Your task to perform on an android device: Toggle the flashlight Image 0: 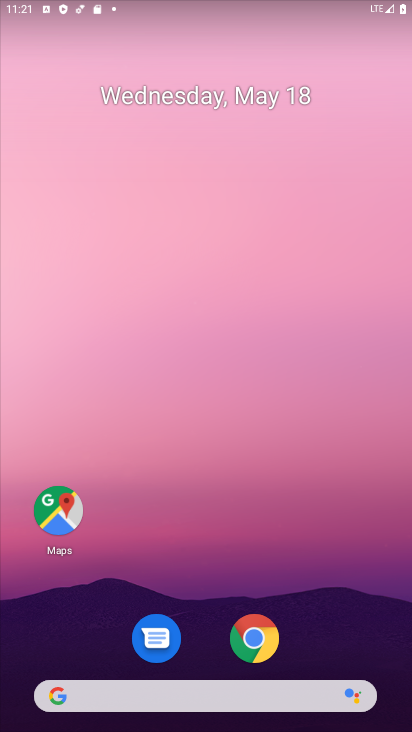
Step 0: drag from (359, 595) to (309, 6)
Your task to perform on an android device: Toggle the flashlight Image 1: 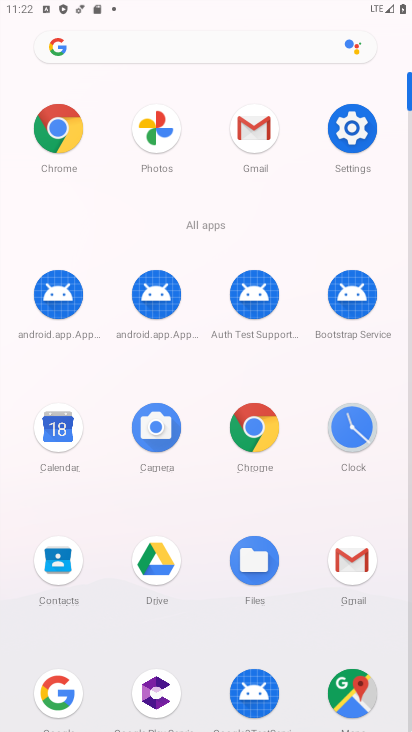
Step 1: click (350, 111)
Your task to perform on an android device: Toggle the flashlight Image 2: 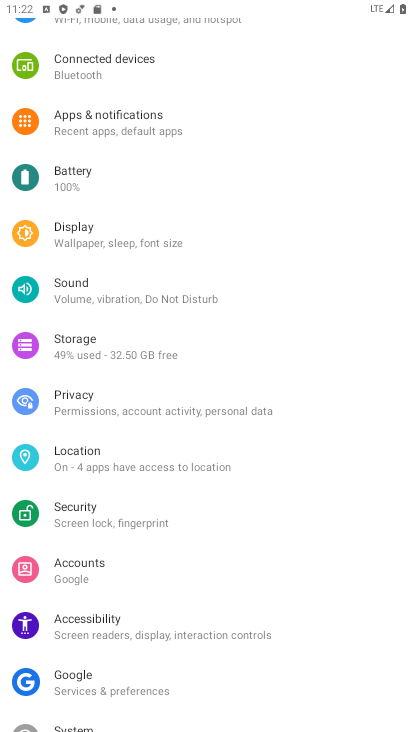
Step 2: task complete